Your task to perform on an android device: turn off location Image 0: 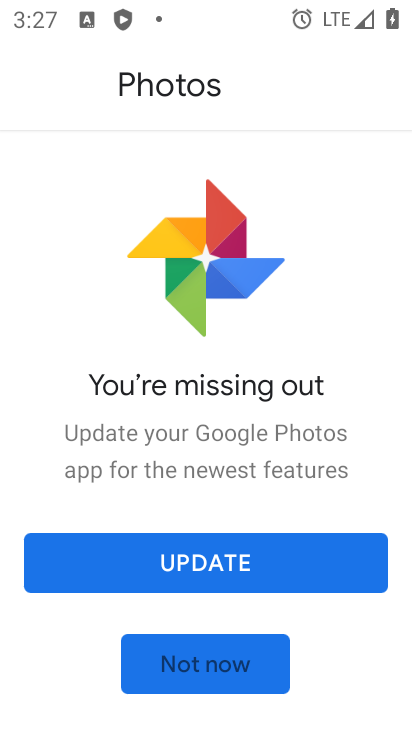
Step 0: press home button
Your task to perform on an android device: turn off location Image 1: 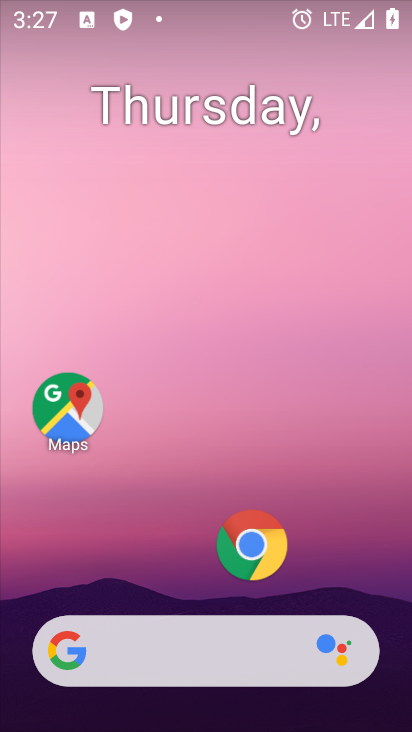
Step 1: drag from (204, 601) to (243, 2)
Your task to perform on an android device: turn off location Image 2: 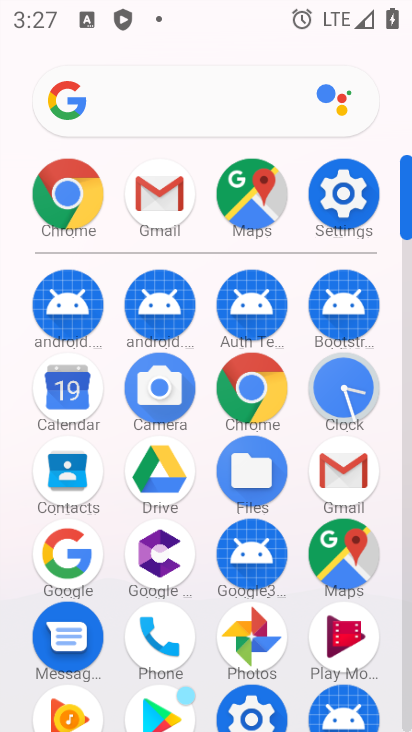
Step 2: click (357, 182)
Your task to perform on an android device: turn off location Image 3: 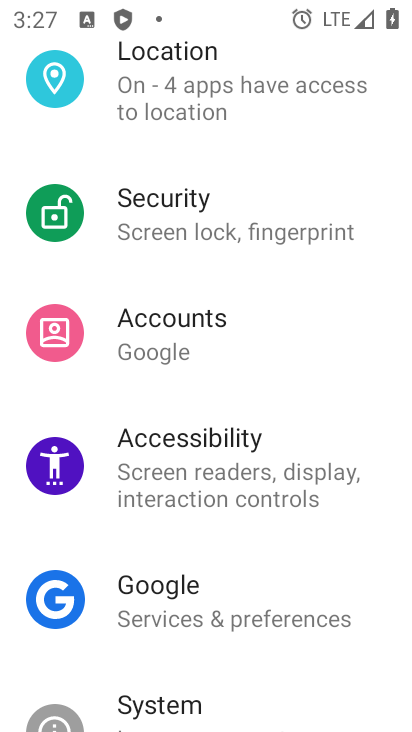
Step 3: click (210, 88)
Your task to perform on an android device: turn off location Image 4: 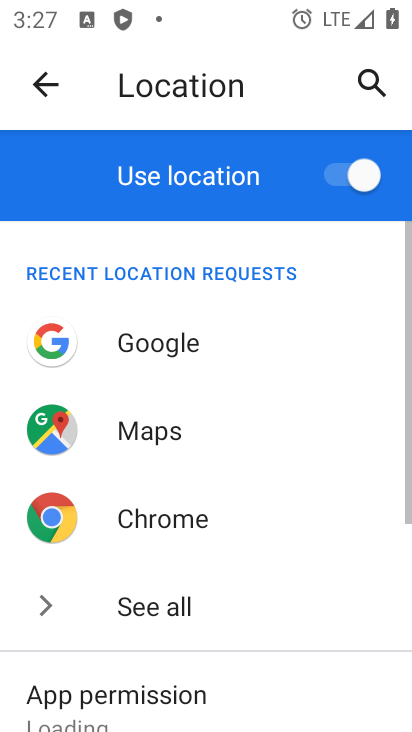
Step 4: click (344, 174)
Your task to perform on an android device: turn off location Image 5: 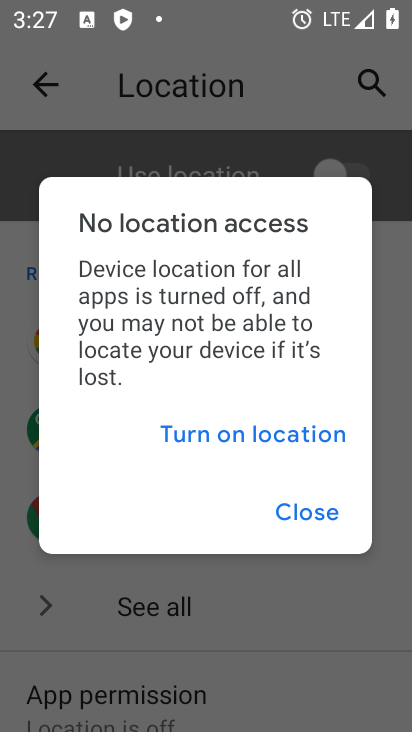
Step 5: click (316, 507)
Your task to perform on an android device: turn off location Image 6: 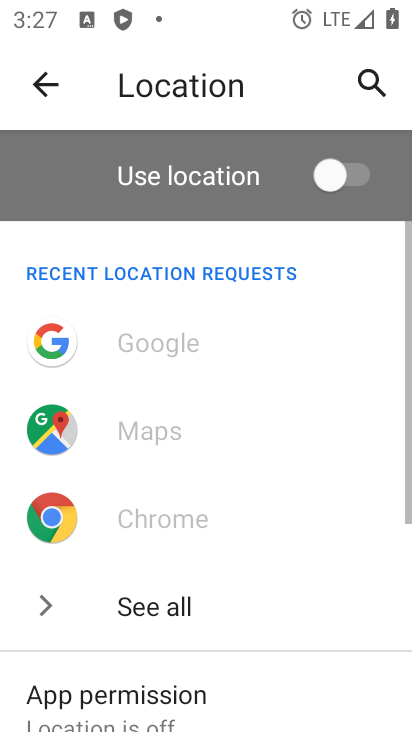
Step 6: task complete